Your task to perform on an android device: see tabs open on other devices in the chrome app Image 0: 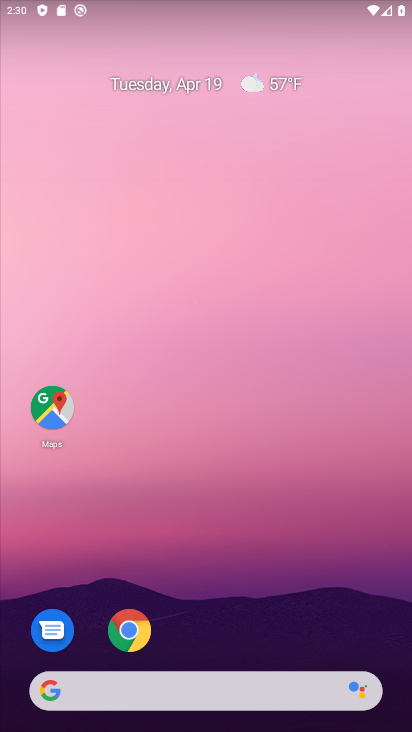
Step 0: click (123, 622)
Your task to perform on an android device: see tabs open on other devices in the chrome app Image 1: 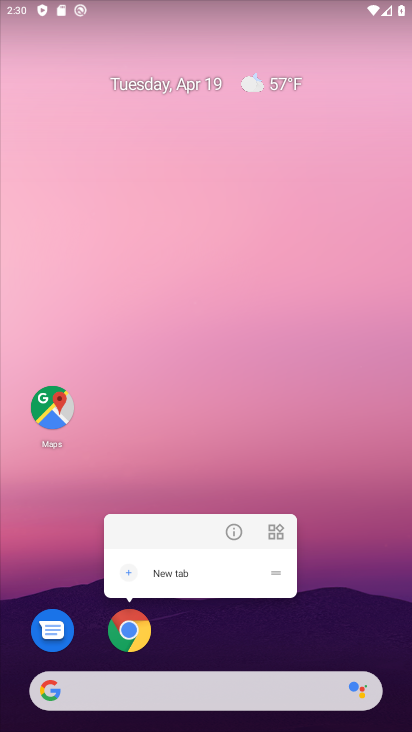
Step 1: click (140, 628)
Your task to perform on an android device: see tabs open on other devices in the chrome app Image 2: 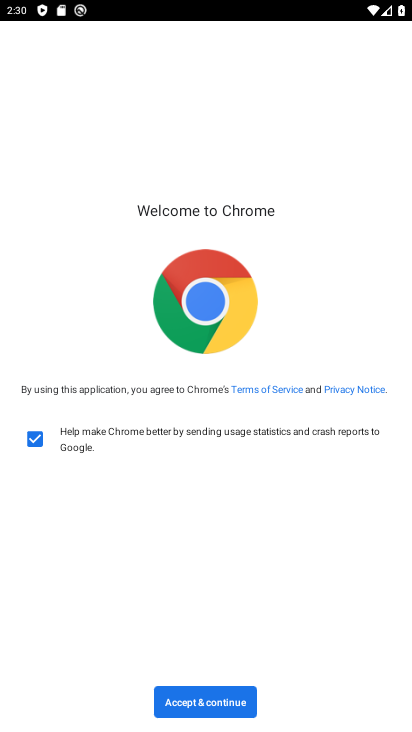
Step 2: click (219, 688)
Your task to perform on an android device: see tabs open on other devices in the chrome app Image 3: 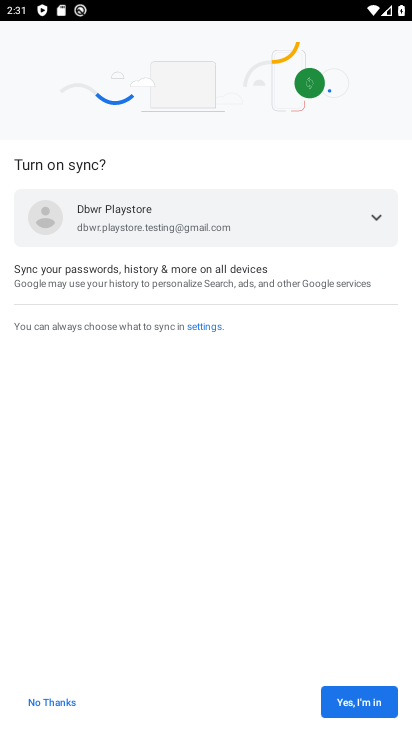
Step 3: click (388, 710)
Your task to perform on an android device: see tabs open on other devices in the chrome app Image 4: 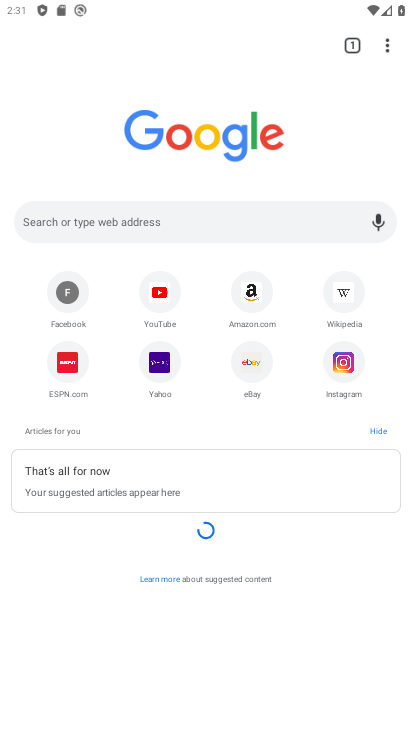
Step 4: click (384, 47)
Your task to perform on an android device: see tabs open on other devices in the chrome app Image 5: 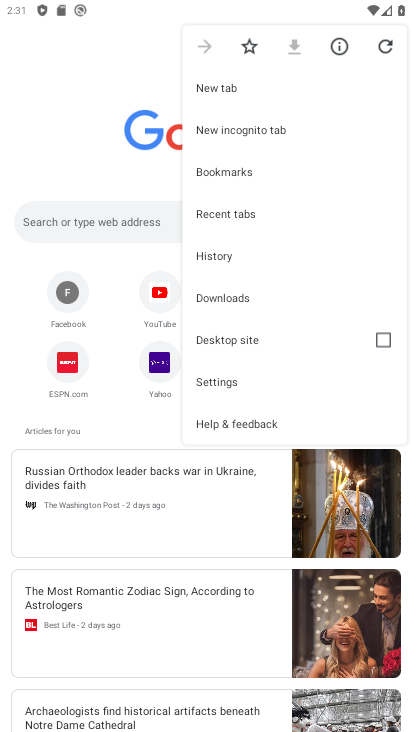
Step 5: click (246, 210)
Your task to perform on an android device: see tabs open on other devices in the chrome app Image 6: 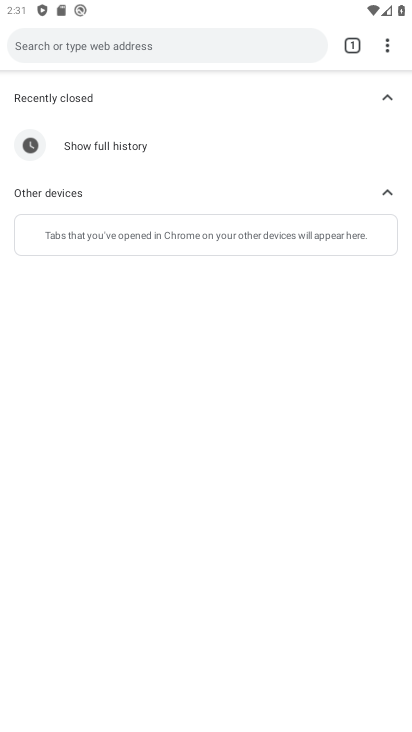
Step 6: task complete